Your task to perform on an android device: read, delete, or share a saved page in the chrome app Image 0: 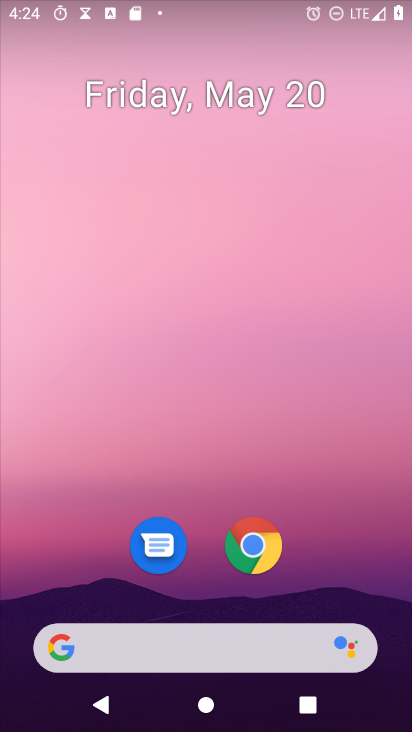
Step 0: drag from (276, 612) to (311, 13)
Your task to perform on an android device: read, delete, or share a saved page in the chrome app Image 1: 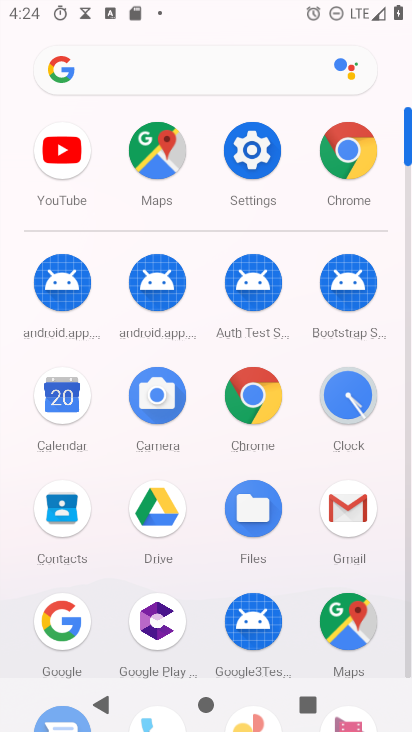
Step 1: click (259, 405)
Your task to perform on an android device: read, delete, or share a saved page in the chrome app Image 2: 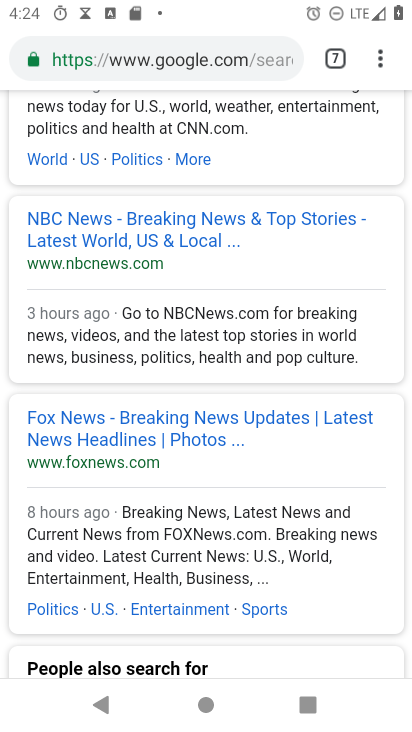
Step 2: task complete